Your task to perform on an android device: Open Chrome and go to the settings page Image 0: 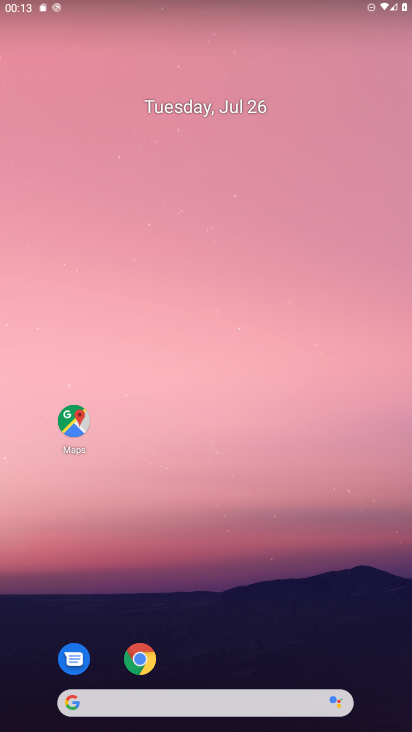
Step 0: press home button
Your task to perform on an android device: Open Chrome and go to the settings page Image 1: 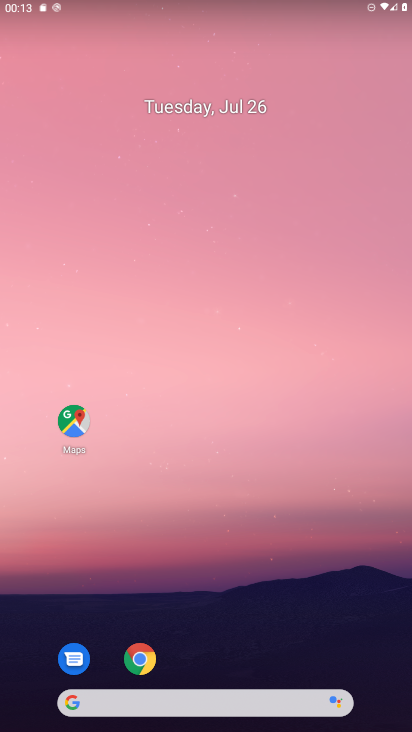
Step 1: click (118, 645)
Your task to perform on an android device: Open Chrome and go to the settings page Image 2: 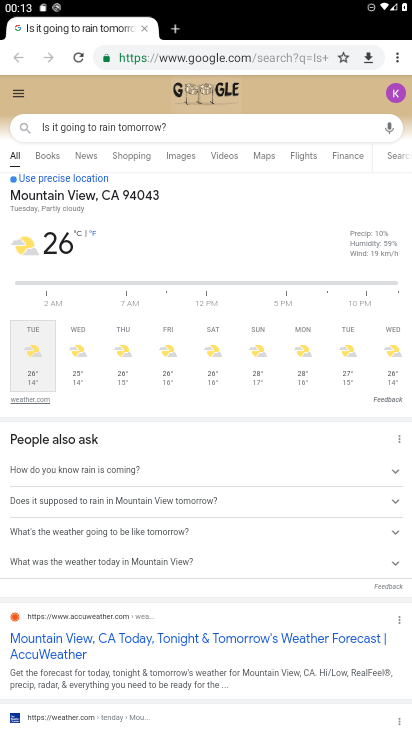
Step 2: drag from (396, 46) to (280, 388)
Your task to perform on an android device: Open Chrome and go to the settings page Image 3: 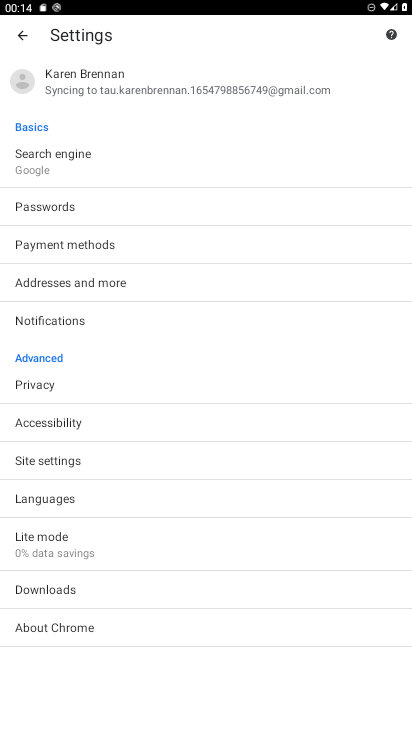
Step 3: click (25, 464)
Your task to perform on an android device: Open Chrome and go to the settings page Image 4: 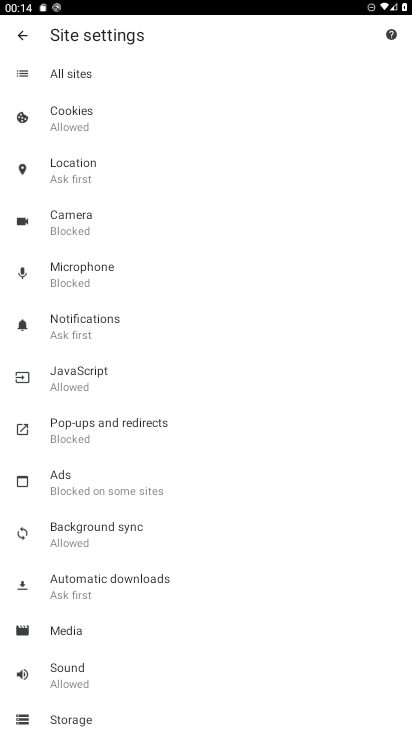
Step 4: click (31, 39)
Your task to perform on an android device: Open Chrome and go to the settings page Image 5: 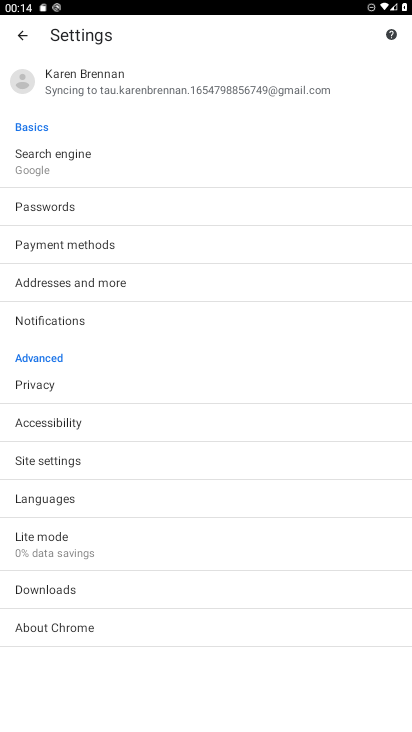
Step 5: task complete